Your task to perform on an android device: Open calendar and show me the fourth week of next month Image 0: 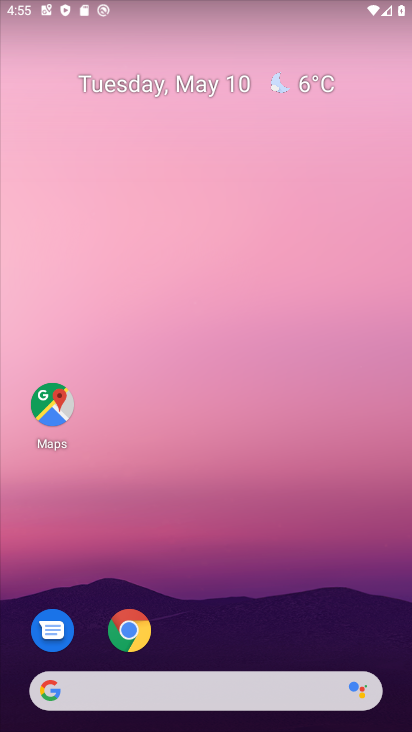
Step 0: drag from (258, 624) to (264, 56)
Your task to perform on an android device: Open calendar and show me the fourth week of next month Image 1: 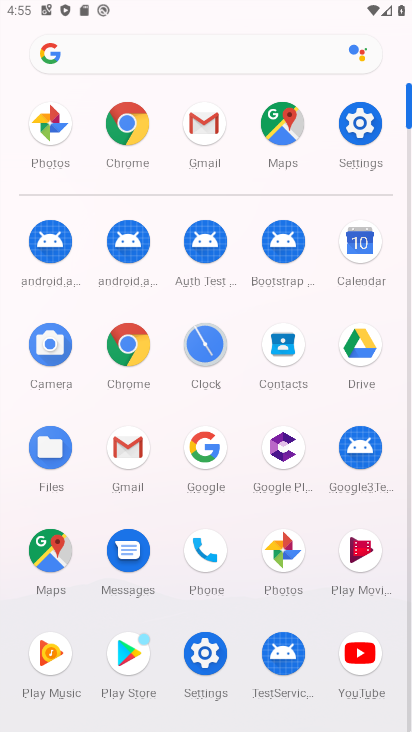
Step 1: click (355, 236)
Your task to perform on an android device: Open calendar and show me the fourth week of next month Image 2: 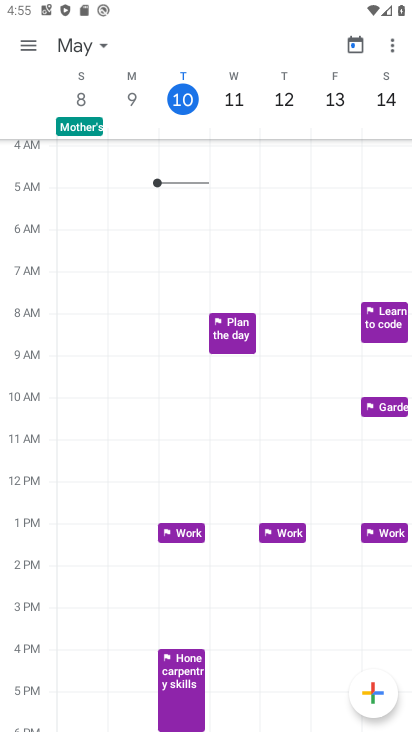
Step 2: click (77, 48)
Your task to perform on an android device: Open calendar and show me the fourth week of next month Image 3: 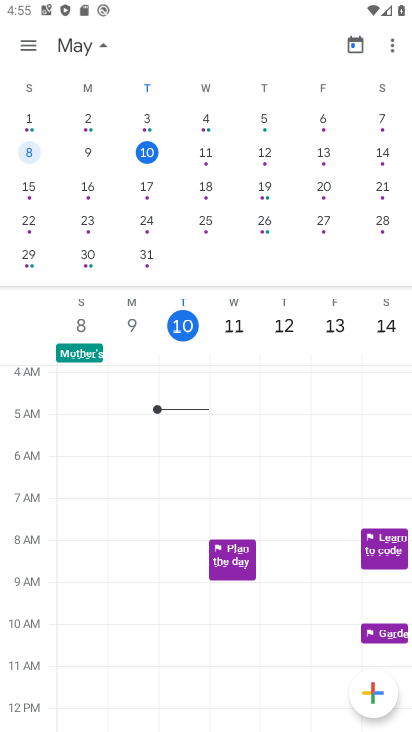
Step 3: drag from (339, 234) to (27, 245)
Your task to perform on an android device: Open calendar and show me the fourth week of next month Image 4: 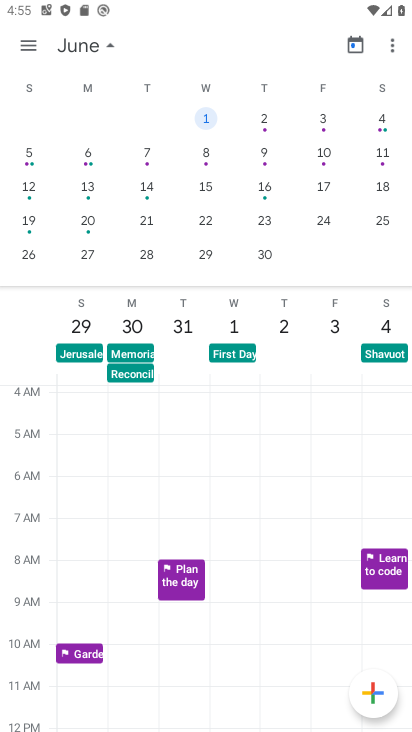
Step 4: click (155, 255)
Your task to perform on an android device: Open calendar and show me the fourth week of next month Image 5: 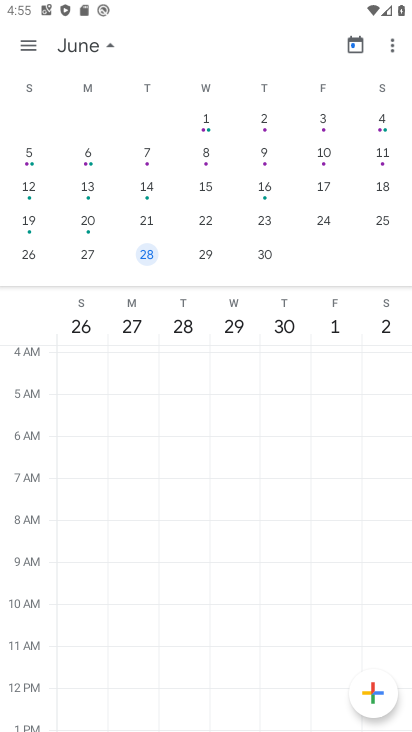
Step 5: task complete